Your task to perform on an android device: turn off sleep mode Image 0: 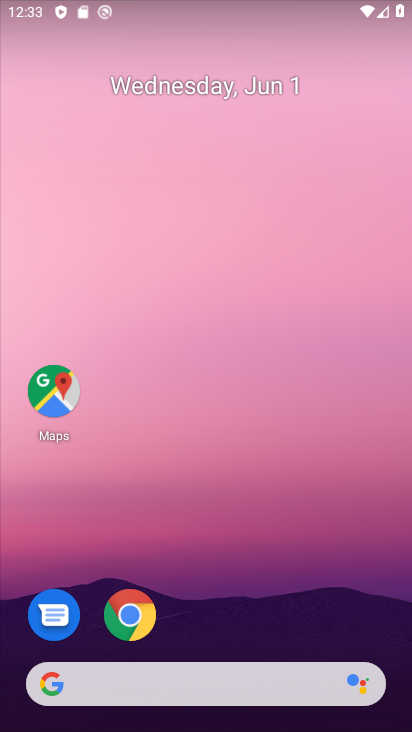
Step 0: drag from (145, 630) to (272, 52)
Your task to perform on an android device: turn off sleep mode Image 1: 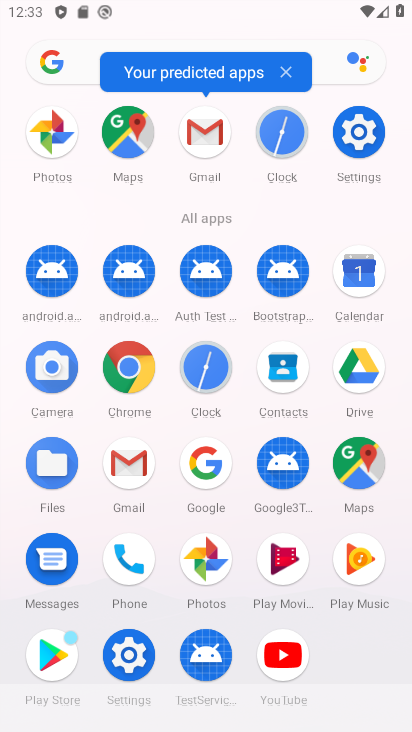
Step 1: click (135, 668)
Your task to perform on an android device: turn off sleep mode Image 2: 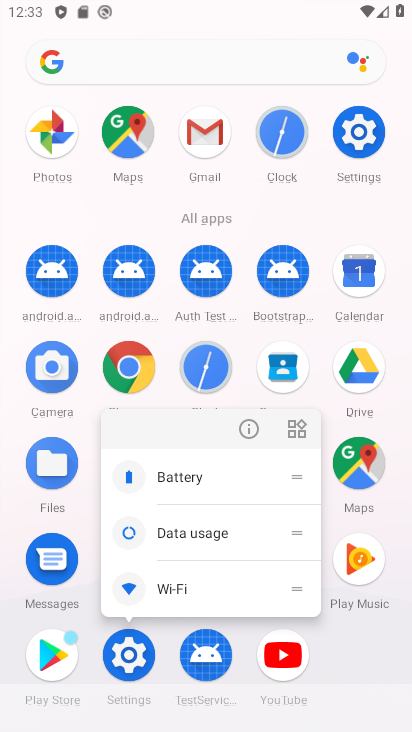
Step 2: click (129, 669)
Your task to perform on an android device: turn off sleep mode Image 3: 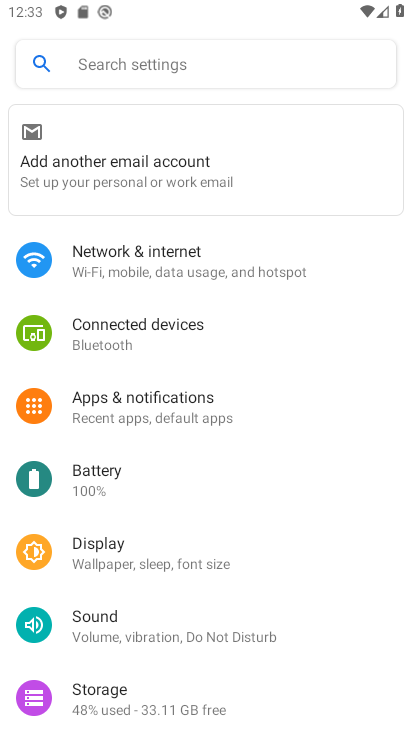
Step 3: click (135, 560)
Your task to perform on an android device: turn off sleep mode Image 4: 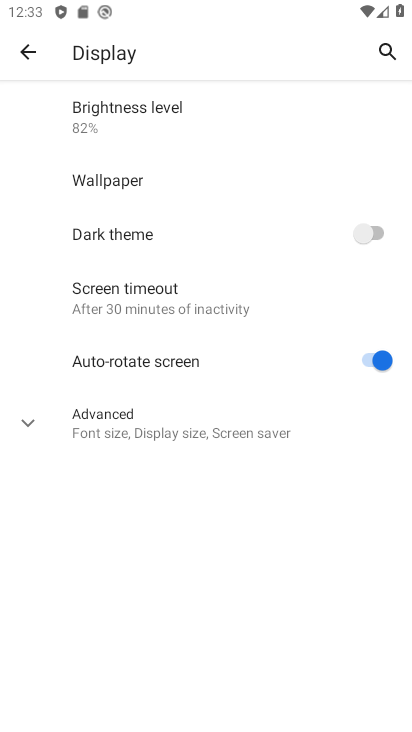
Step 4: task complete